Your task to perform on an android device: Clear the shopping cart on amazon.com. Add acer nitro to the cart on amazon.com, then select checkout. Image 0: 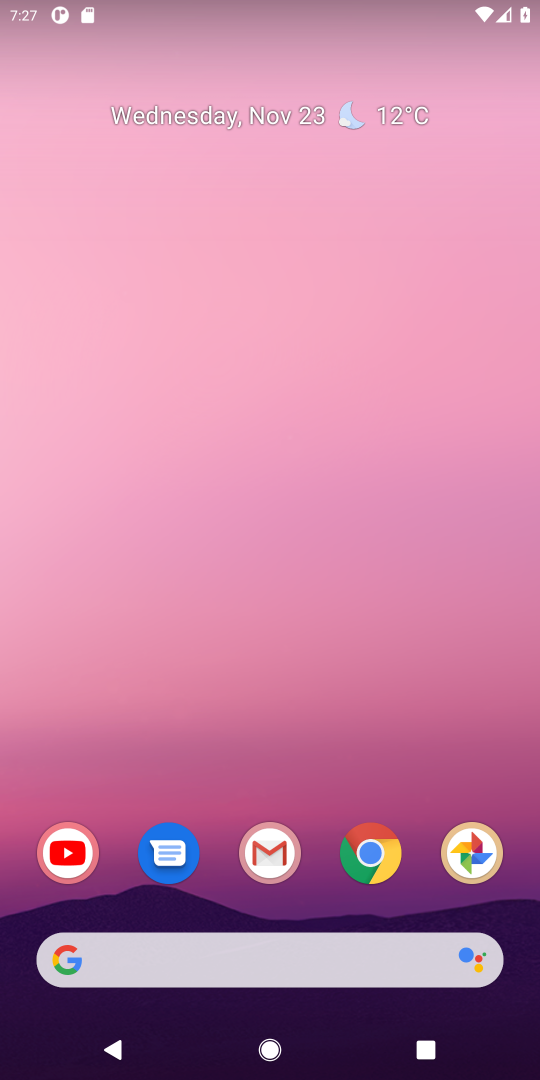
Step 0: click (371, 852)
Your task to perform on an android device: Clear the shopping cart on amazon.com. Add acer nitro to the cart on amazon.com, then select checkout. Image 1: 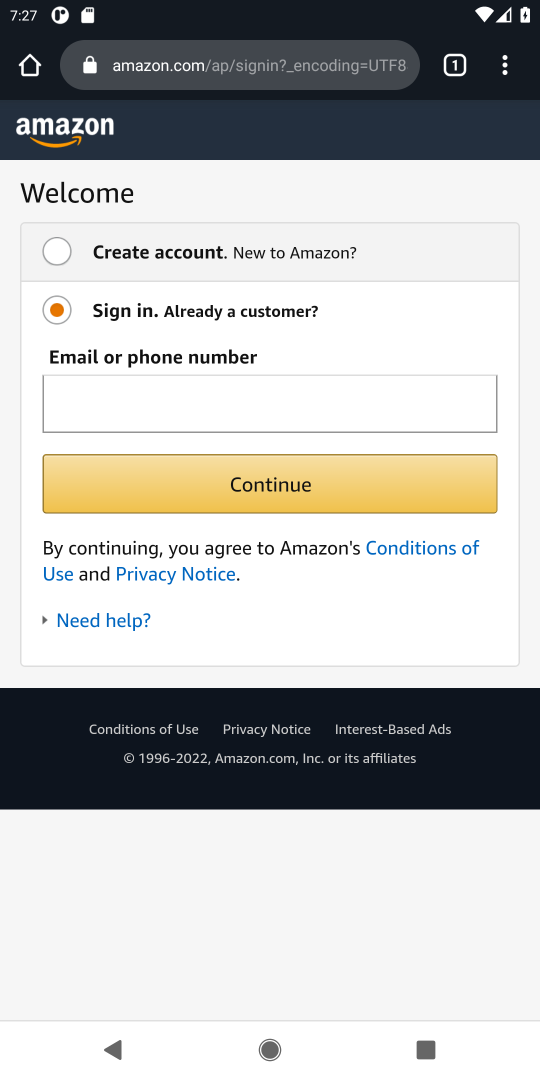
Step 1: press back button
Your task to perform on an android device: Clear the shopping cart on amazon.com. Add acer nitro to the cart on amazon.com, then select checkout. Image 2: 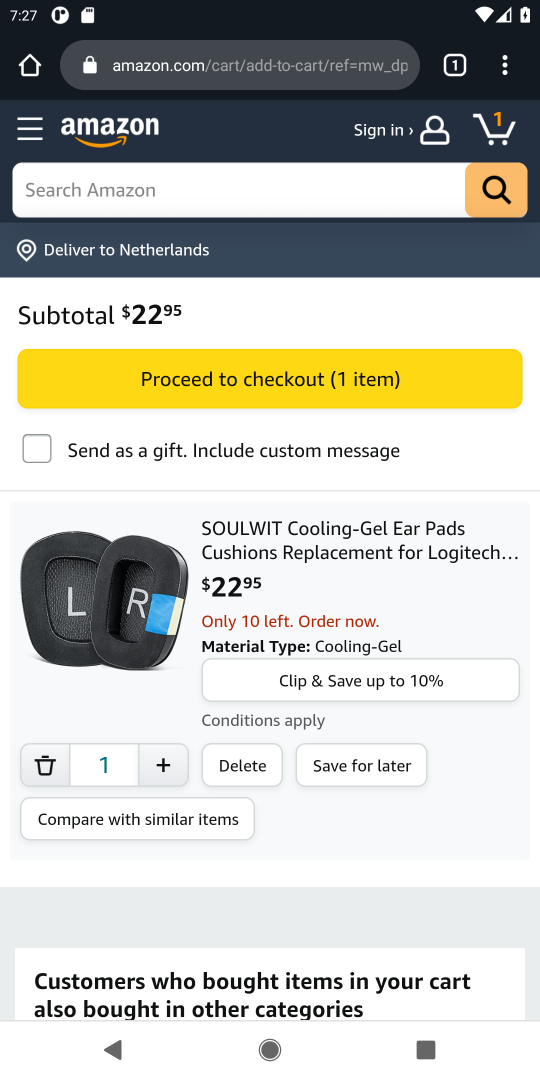
Step 2: click (243, 764)
Your task to perform on an android device: Clear the shopping cart on amazon.com. Add acer nitro to the cart on amazon.com, then select checkout. Image 3: 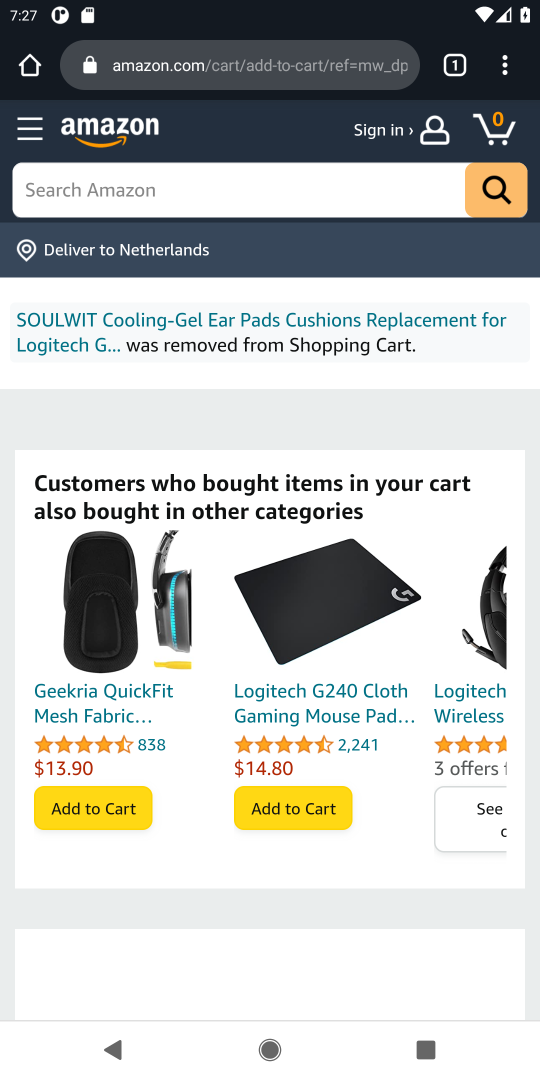
Step 3: click (108, 199)
Your task to perform on an android device: Clear the shopping cart on amazon.com. Add acer nitro to the cart on amazon.com, then select checkout. Image 4: 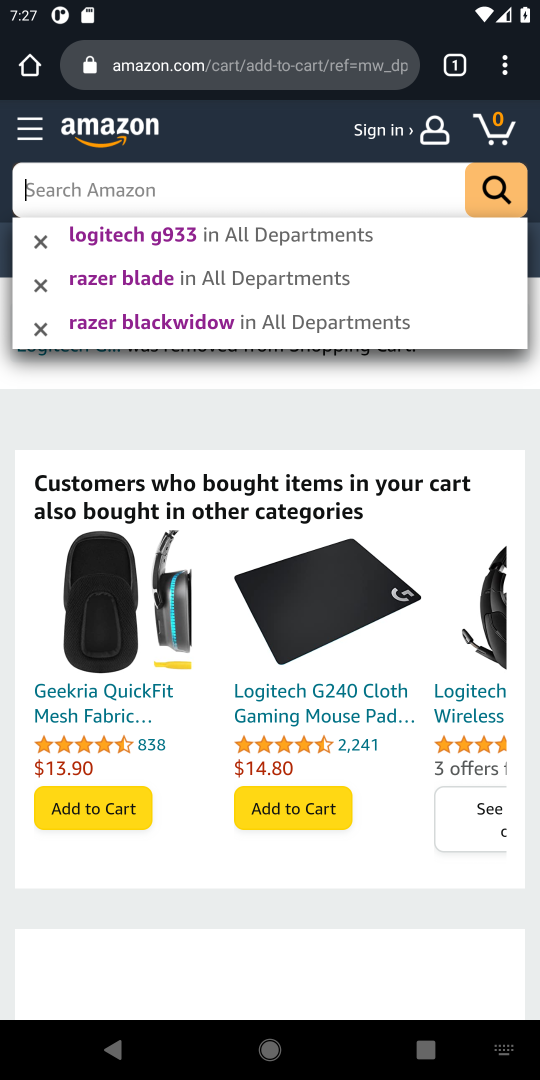
Step 4: type "acer nitro"
Your task to perform on an android device: Clear the shopping cart on amazon.com. Add acer nitro to the cart on amazon.com, then select checkout. Image 5: 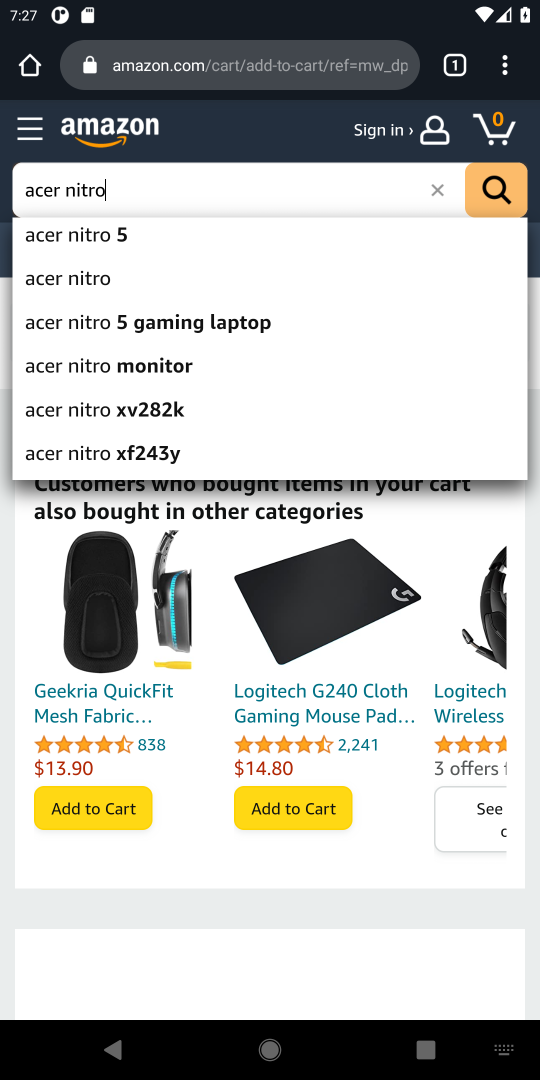
Step 5: click (95, 275)
Your task to perform on an android device: Clear the shopping cart on amazon.com. Add acer nitro to the cart on amazon.com, then select checkout. Image 6: 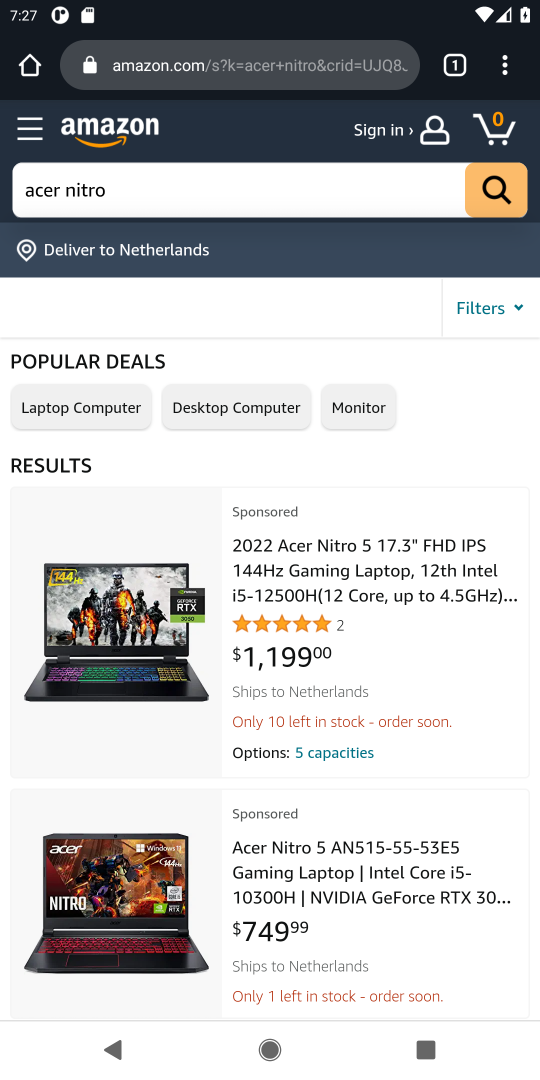
Step 6: click (105, 672)
Your task to perform on an android device: Clear the shopping cart on amazon.com. Add acer nitro to the cart on amazon.com, then select checkout. Image 7: 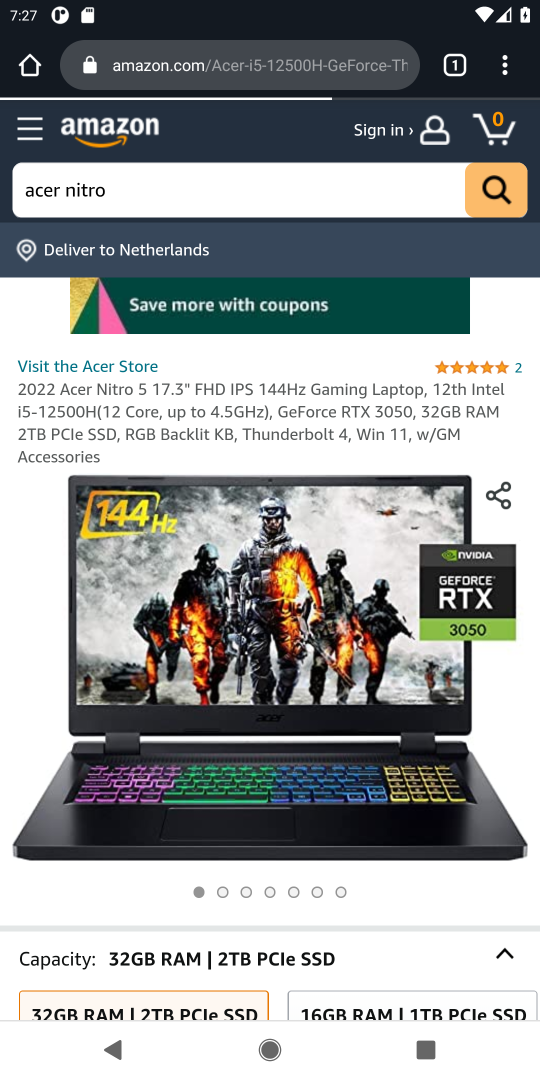
Step 7: drag from (196, 758) to (182, 271)
Your task to perform on an android device: Clear the shopping cart on amazon.com. Add acer nitro to the cart on amazon.com, then select checkout. Image 8: 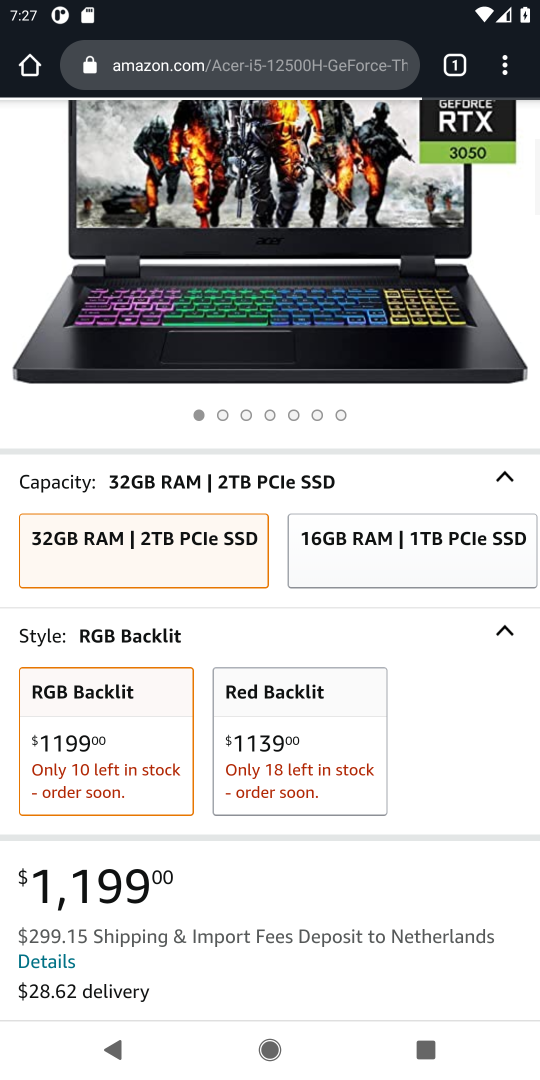
Step 8: drag from (285, 750) to (286, 350)
Your task to perform on an android device: Clear the shopping cart on amazon.com. Add acer nitro to the cart on amazon.com, then select checkout. Image 9: 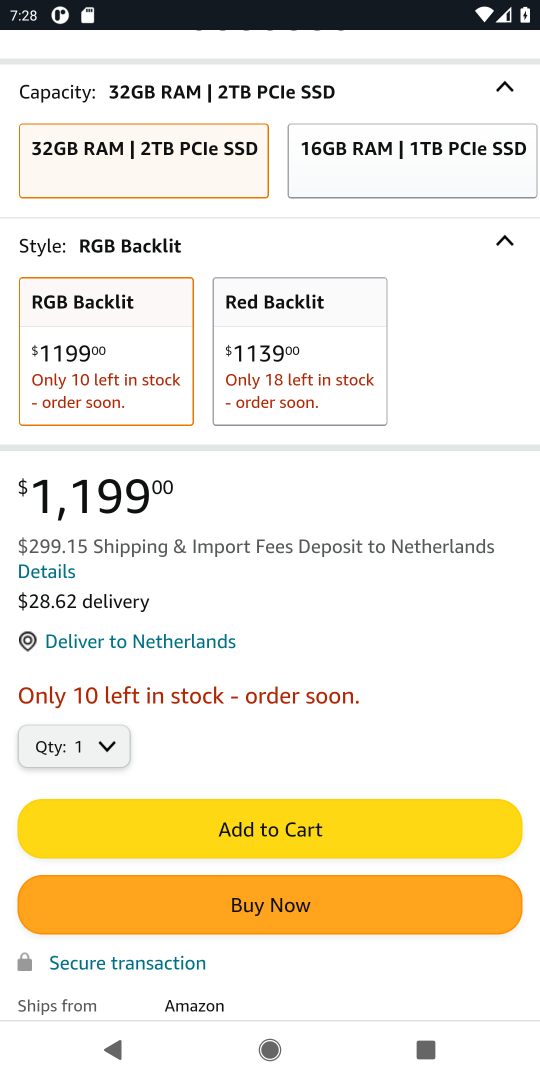
Step 9: click (251, 823)
Your task to perform on an android device: Clear the shopping cart on amazon.com. Add acer nitro to the cart on amazon.com, then select checkout. Image 10: 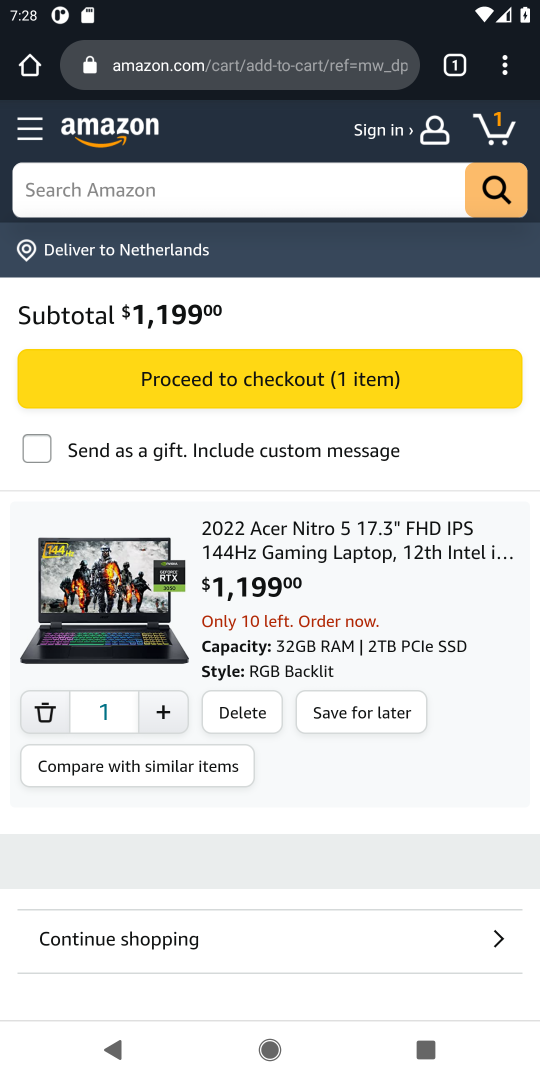
Step 10: click (211, 381)
Your task to perform on an android device: Clear the shopping cart on amazon.com. Add acer nitro to the cart on amazon.com, then select checkout. Image 11: 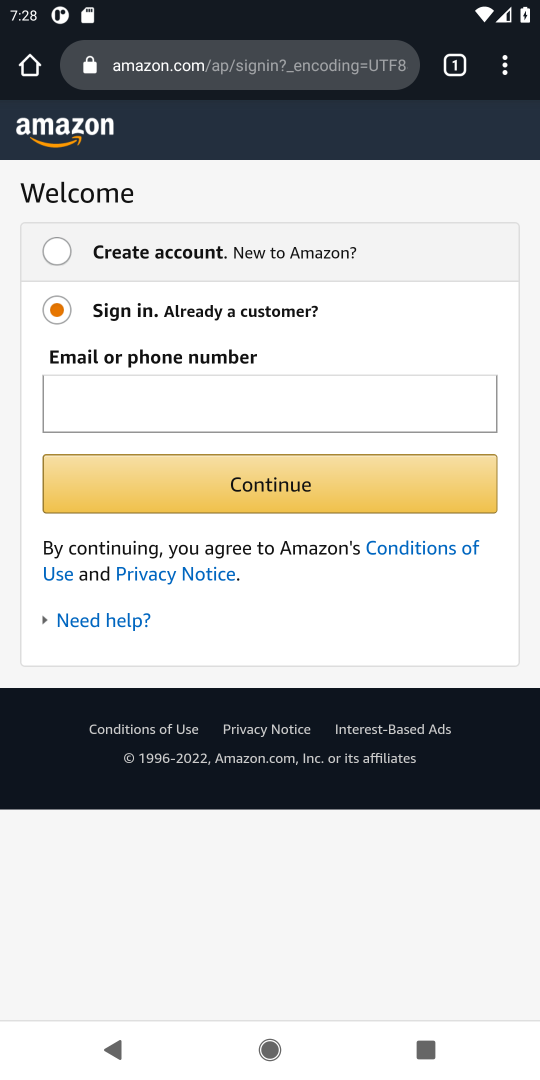
Step 11: task complete